Your task to perform on an android device: move a message to another label in the gmail app Image 0: 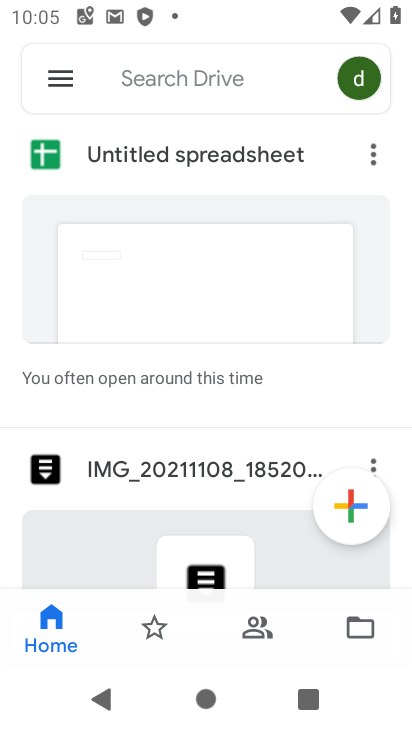
Step 0: press home button
Your task to perform on an android device: move a message to another label in the gmail app Image 1: 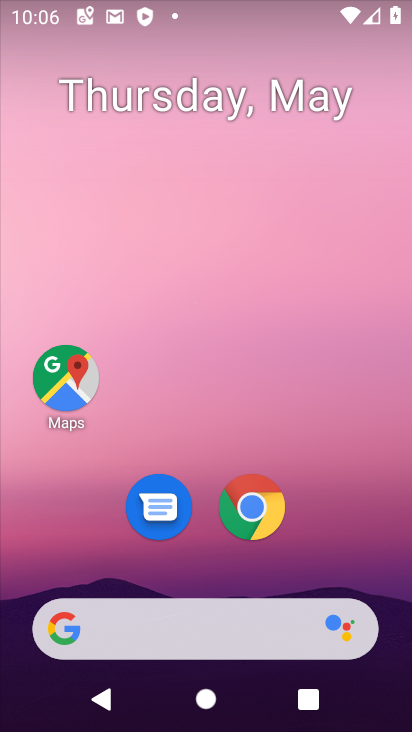
Step 1: drag from (151, 730) to (85, 89)
Your task to perform on an android device: move a message to another label in the gmail app Image 2: 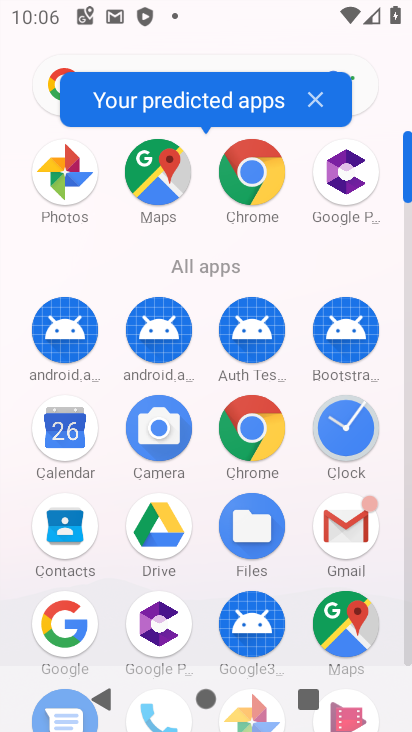
Step 2: click (358, 544)
Your task to perform on an android device: move a message to another label in the gmail app Image 3: 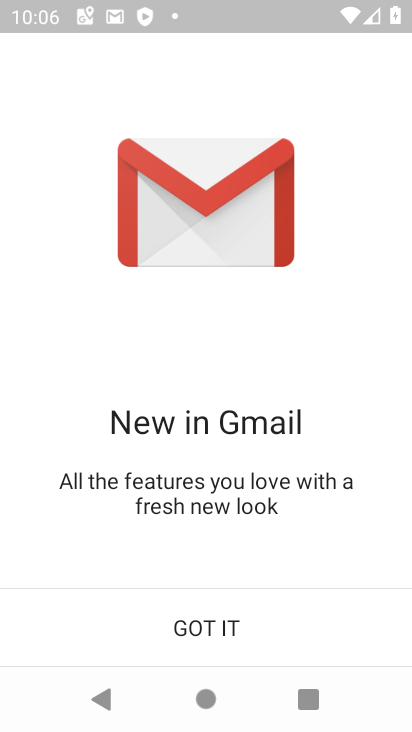
Step 3: click (219, 619)
Your task to perform on an android device: move a message to another label in the gmail app Image 4: 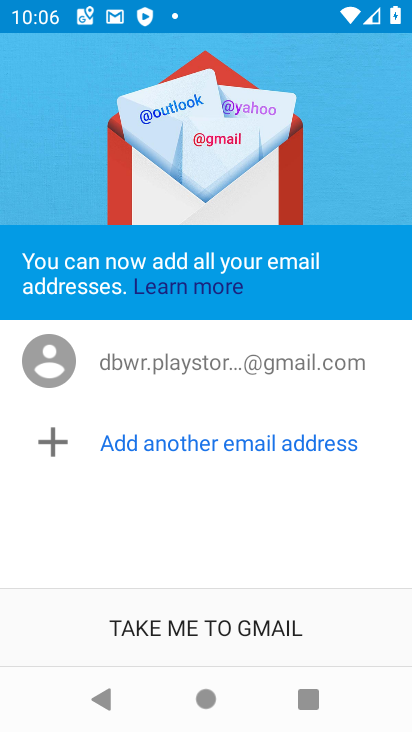
Step 4: click (223, 627)
Your task to perform on an android device: move a message to another label in the gmail app Image 5: 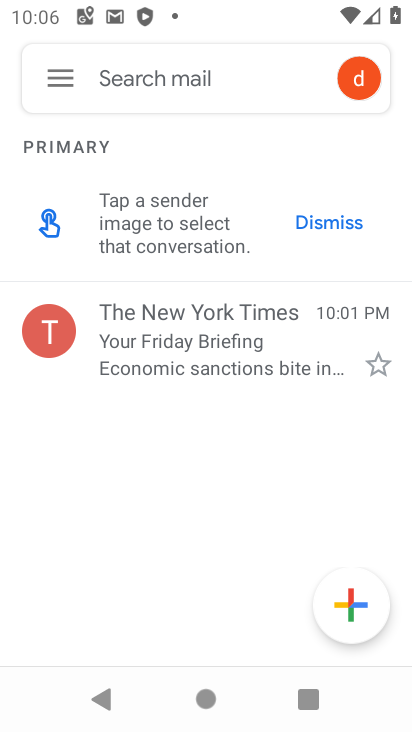
Step 5: click (237, 349)
Your task to perform on an android device: move a message to another label in the gmail app Image 6: 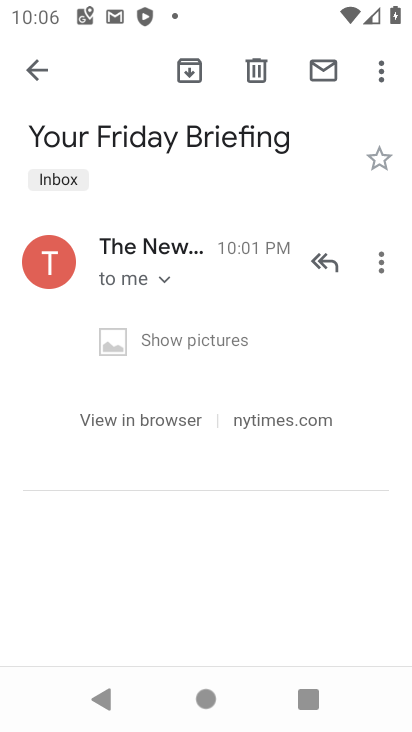
Step 6: click (382, 265)
Your task to perform on an android device: move a message to another label in the gmail app Image 7: 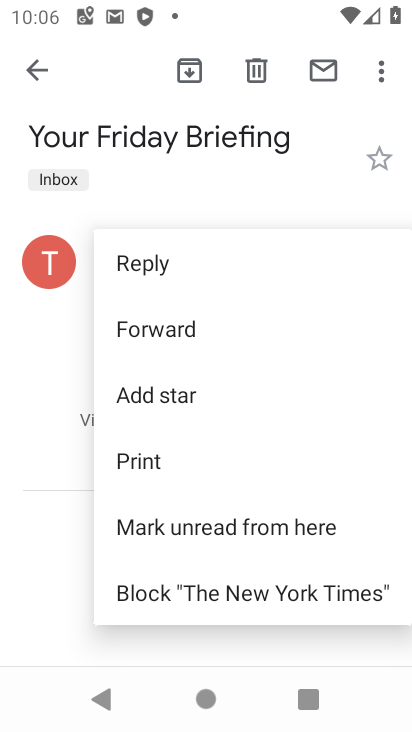
Step 7: click (383, 76)
Your task to perform on an android device: move a message to another label in the gmail app Image 8: 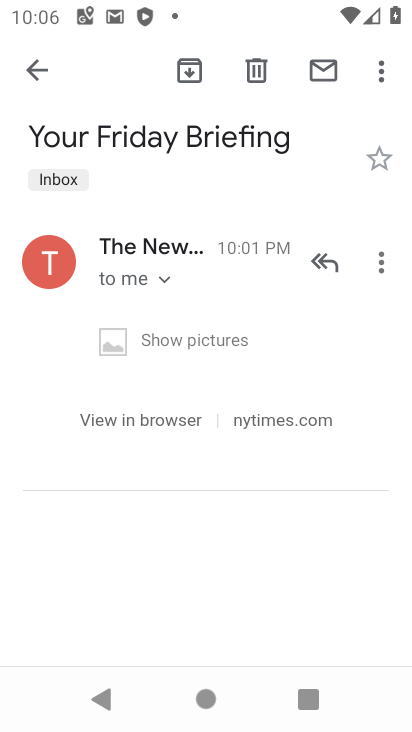
Step 8: click (383, 81)
Your task to perform on an android device: move a message to another label in the gmail app Image 9: 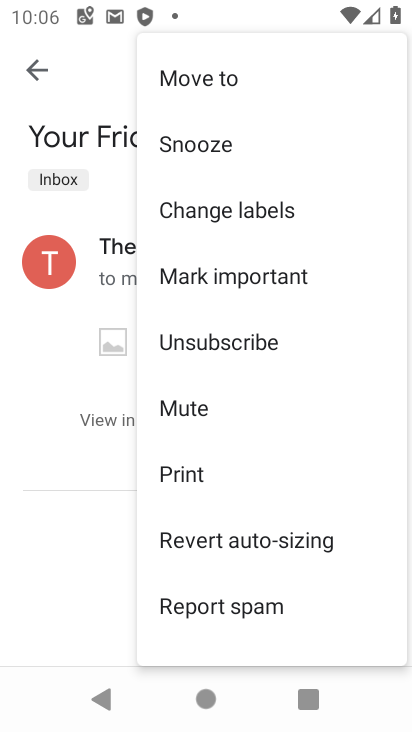
Step 9: click (223, 86)
Your task to perform on an android device: move a message to another label in the gmail app Image 10: 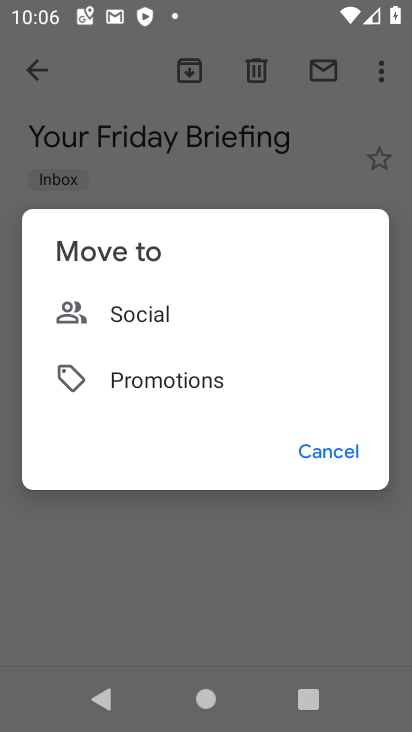
Step 10: click (139, 330)
Your task to perform on an android device: move a message to another label in the gmail app Image 11: 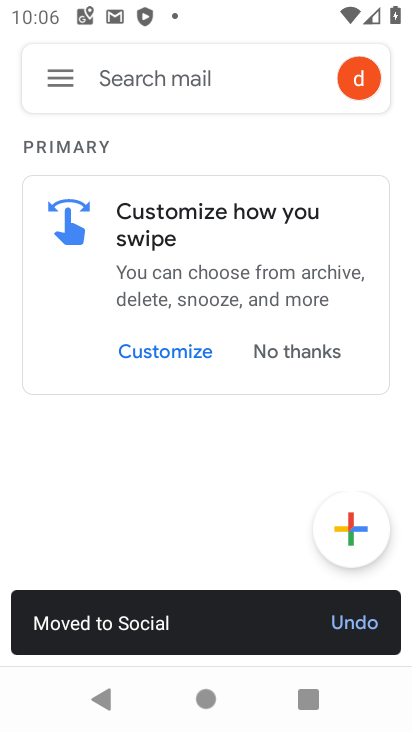
Step 11: task complete